Your task to perform on an android device: Go to display settings Image 0: 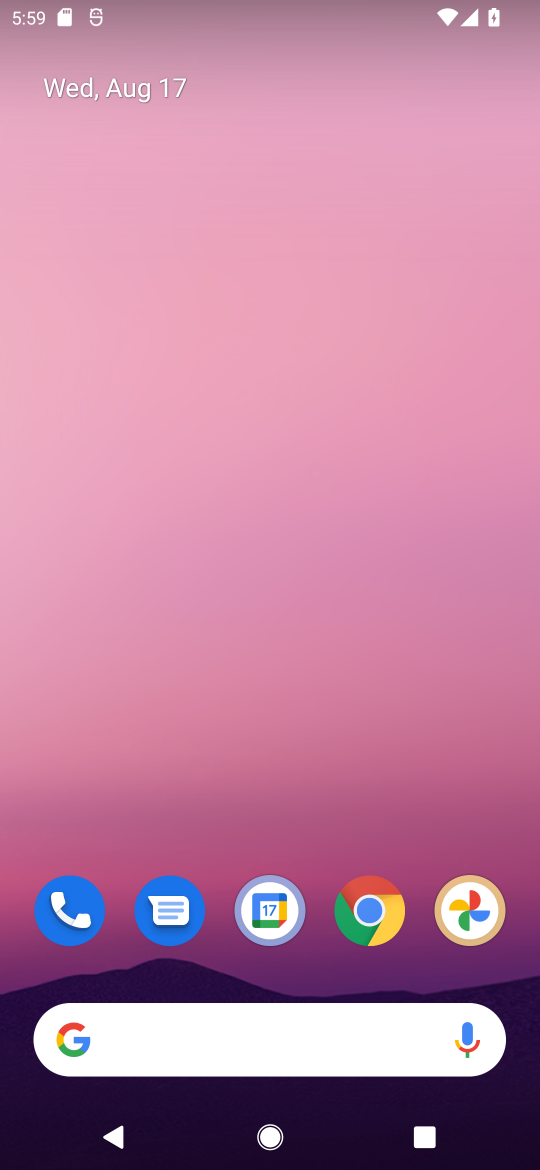
Step 0: drag from (240, 651) to (253, 8)
Your task to perform on an android device: Go to display settings Image 1: 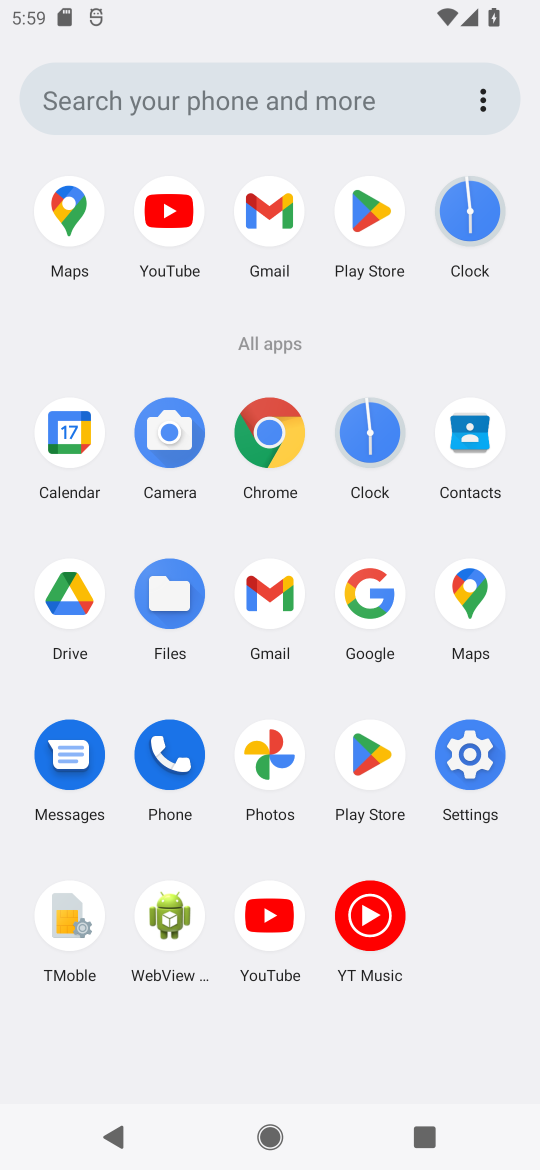
Step 1: click (468, 760)
Your task to perform on an android device: Go to display settings Image 2: 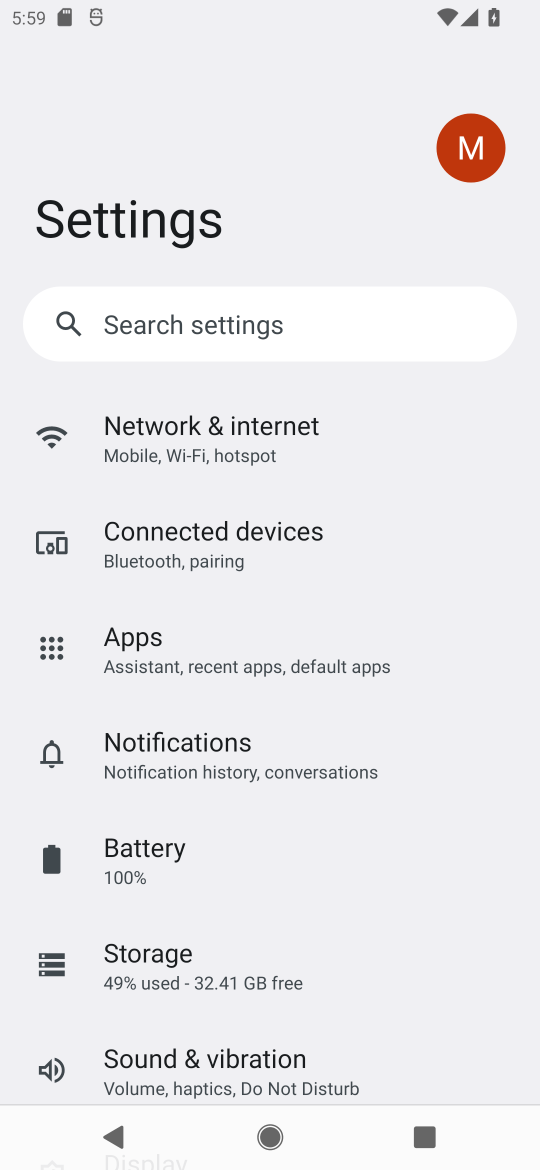
Step 2: task complete